Your task to perform on an android device: open app "Grab" (install if not already installed) Image 0: 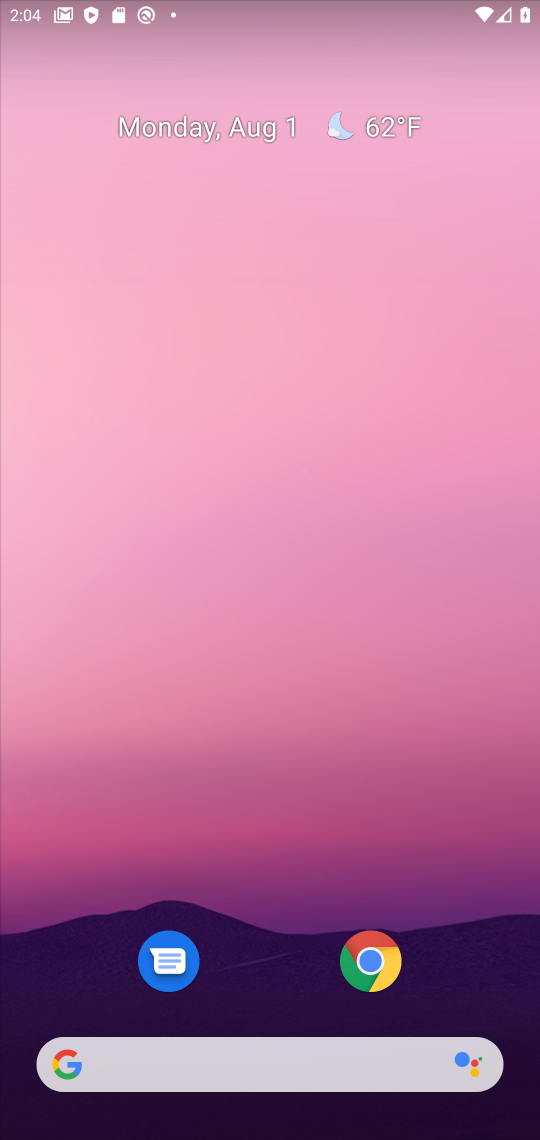
Step 0: drag from (293, 1004) to (292, 26)
Your task to perform on an android device: open app "Grab" (install if not already installed) Image 1: 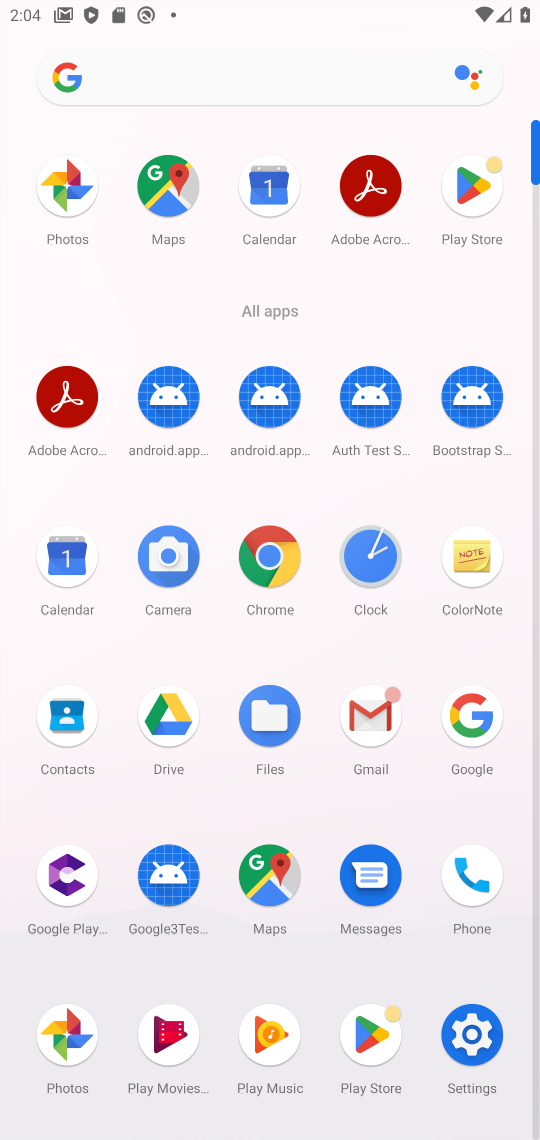
Step 1: click (482, 182)
Your task to perform on an android device: open app "Grab" (install if not already installed) Image 2: 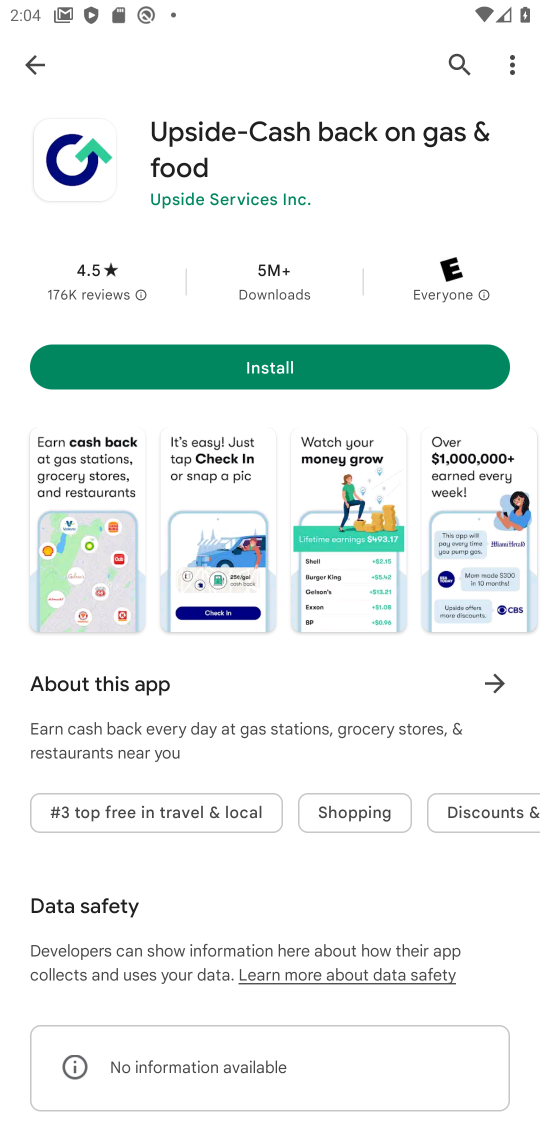
Step 2: click (456, 64)
Your task to perform on an android device: open app "Grab" (install if not already installed) Image 3: 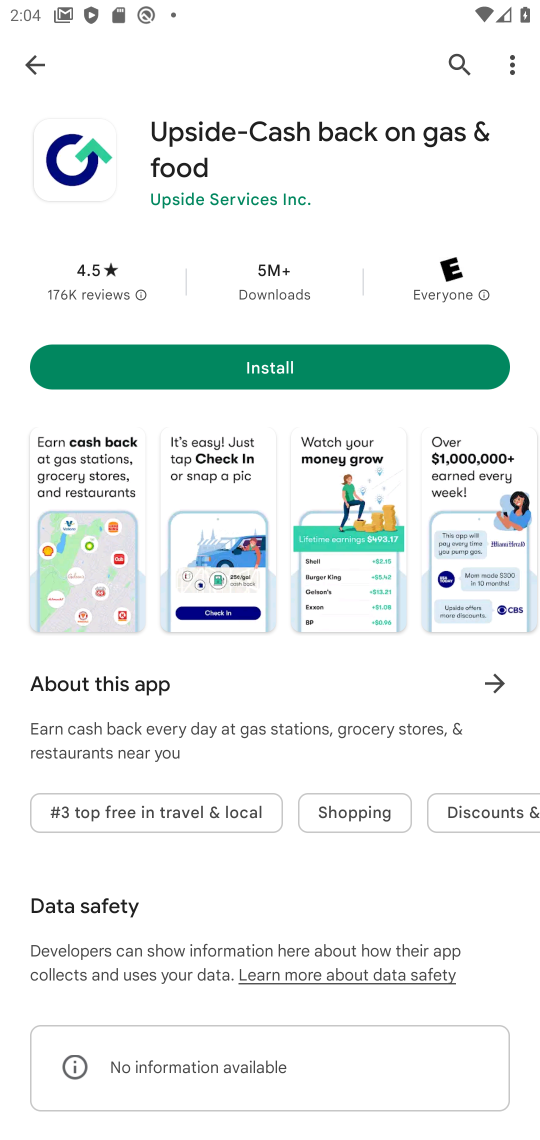
Step 3: click (446, 57)
Your task to perform on an android device: open app "Grab" (install if not already installed) Image 4: 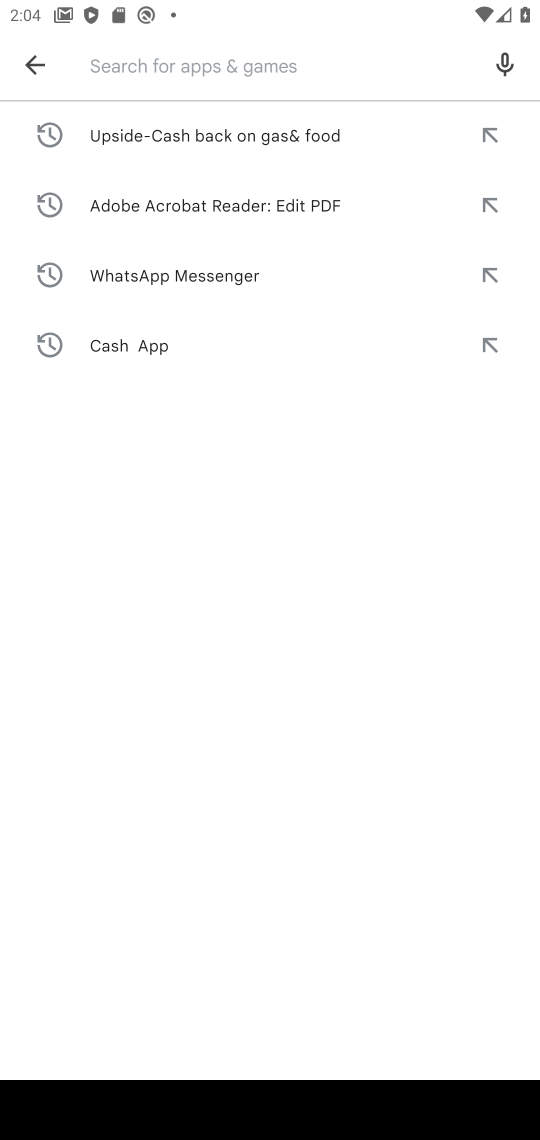
Step 4: type "Grab"
Your task to perform on an android device: open app "Grab" (install if not already installed) Image 5: 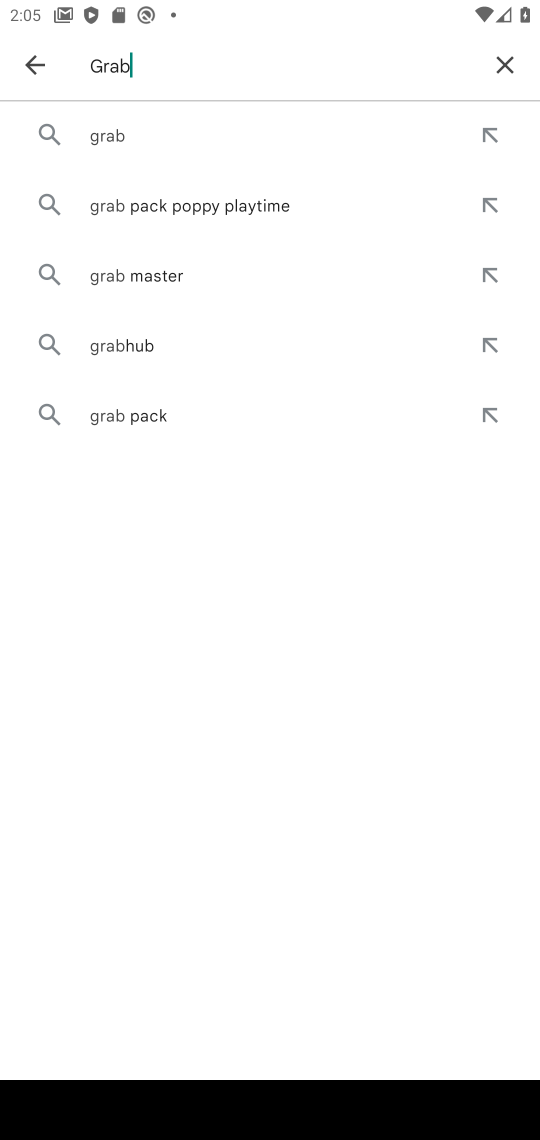
Step 5: press enter
Your task to perform on an android device: open app "Grab" (install if not already installed) Image 6: 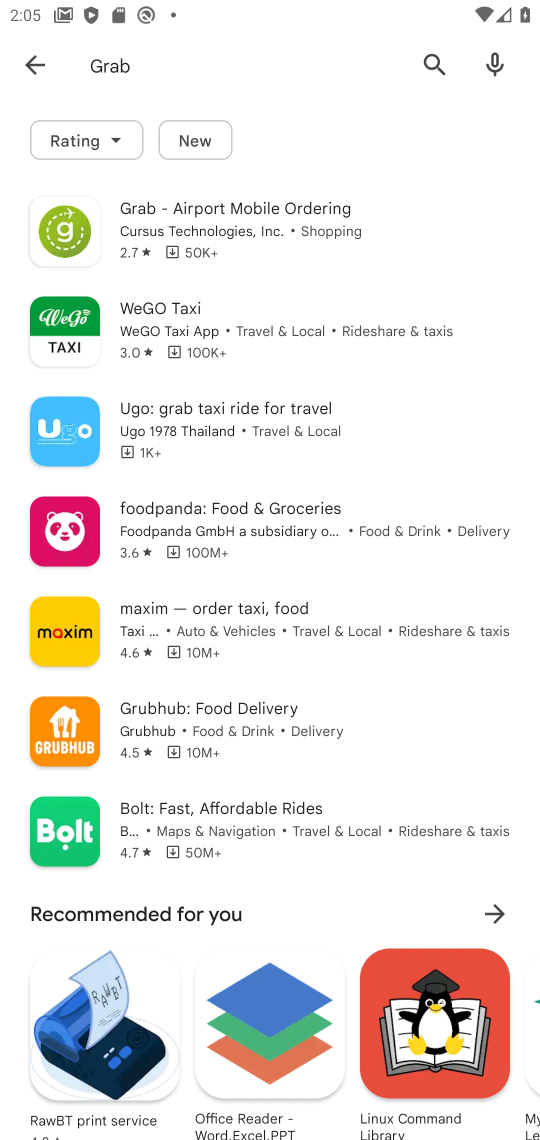
Step 6: click (210, 219)
Your task to perform on an android device: open app "Grab" (install if not already installed) Image 7: 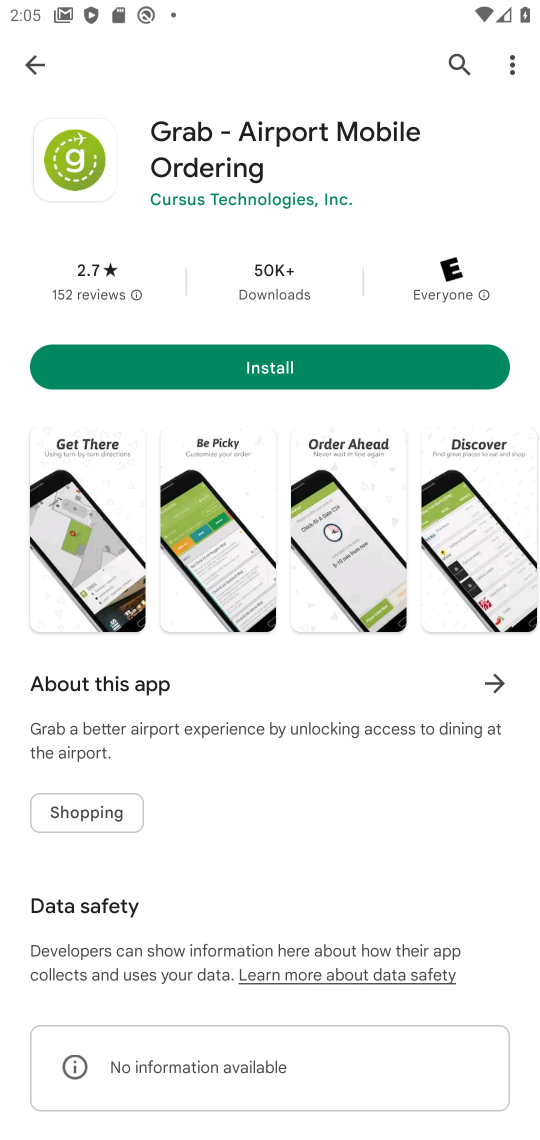
Step 7: click (335, 354)
Your task to perform on an android device: open app "Grab" (install if not already installed) Image 8: 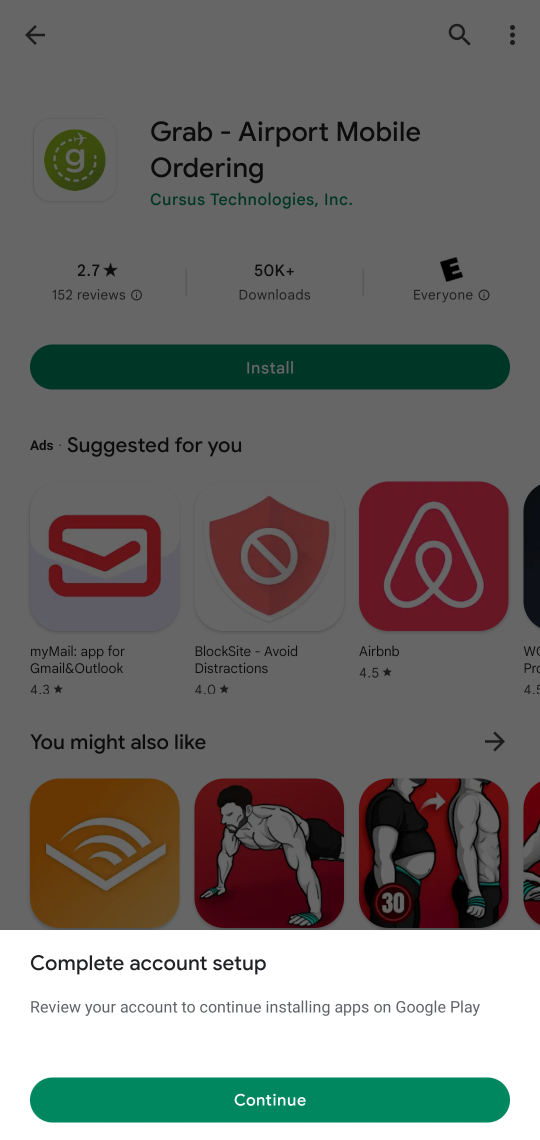
Step 8: click (415, 1083)
Your task to perform on an android device: open app "Grab" (install if not already installed) Image 9: 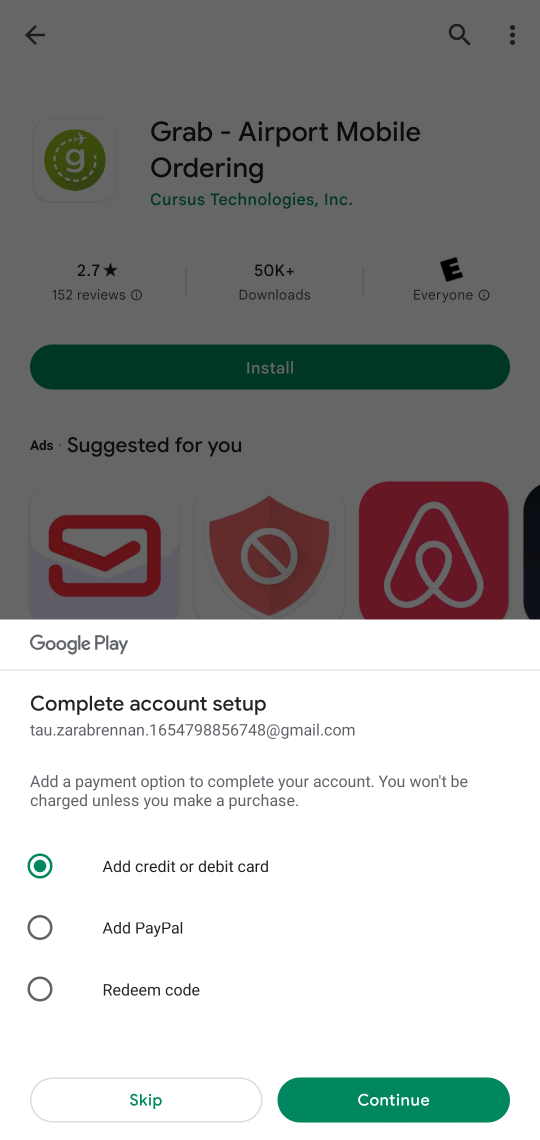
Step 9: click (175, 1093)
Your task to perform on an android device: open app "Grab" (install if not already installed) Image 10: 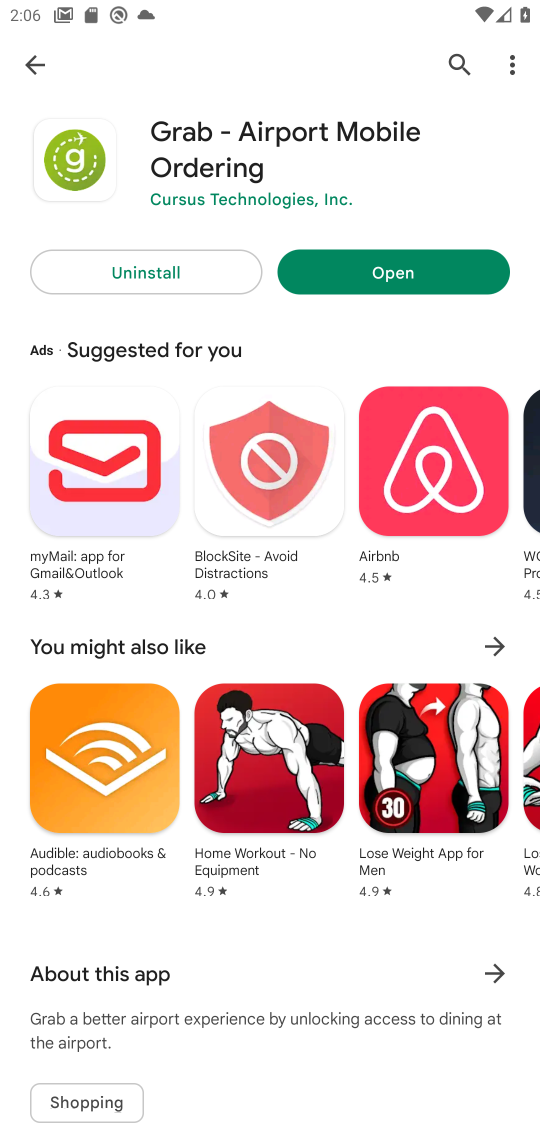
Step 10: click (428, 279)
Your task to perform on an android device: open app "Grab" (install if not already installed) Image 11: 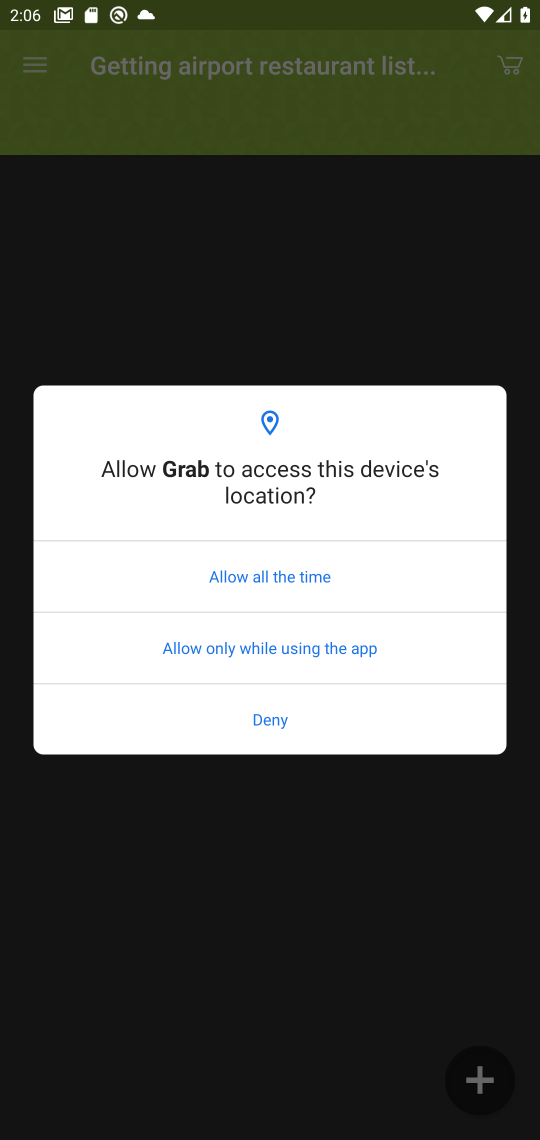
Step 11: task complete